Your task to perform on an android device: open sync settings in chrome Image 0: 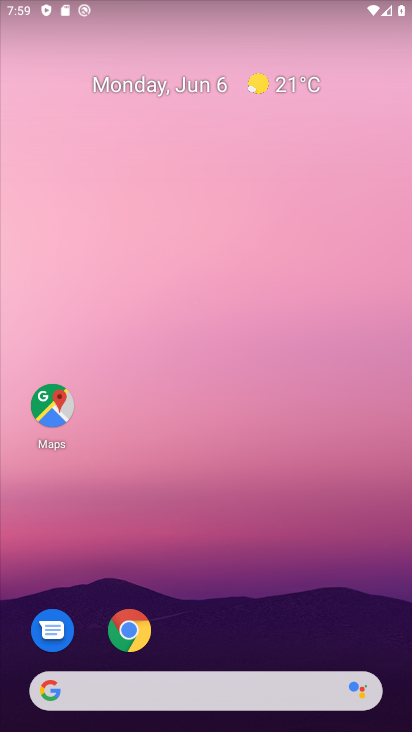
Step 0: click (141, 630)
Your task to perform on an android device: open sync settings in chrome Image 1: 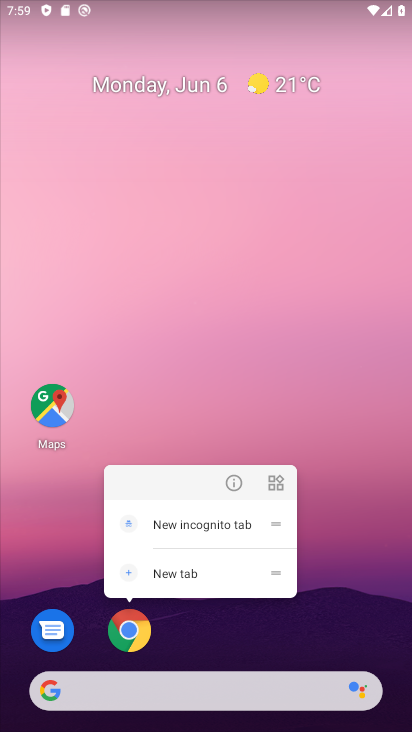
Step 1: click (140, 629)
Your task to perform on an android device: open sync settings in chrome Image 2: 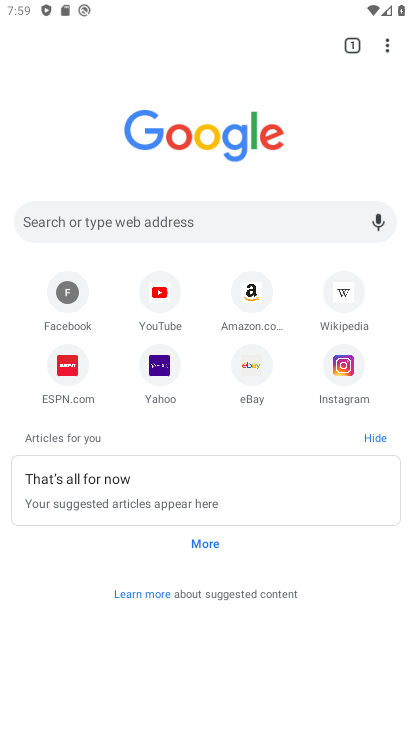
Step 2: click (388, 51)
Your task to perform on an android device: open sync settings in chrome Image 3: 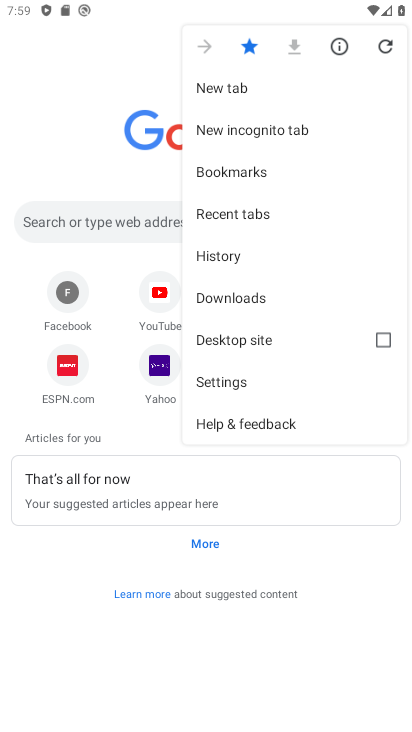
Step 3: click (238, 384)
Your task to perform on an android device: open sync settings in chrome Image 4: 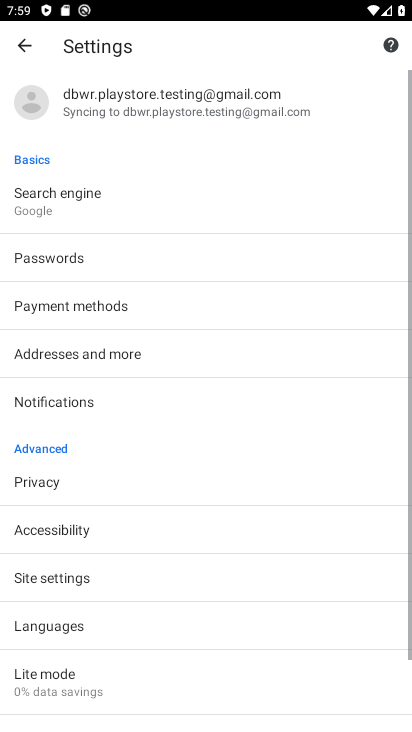
Step 4: drag from (202, 640) to (242, 377)
Your task to perform on an android device: open sync settings in chrome Image 5: 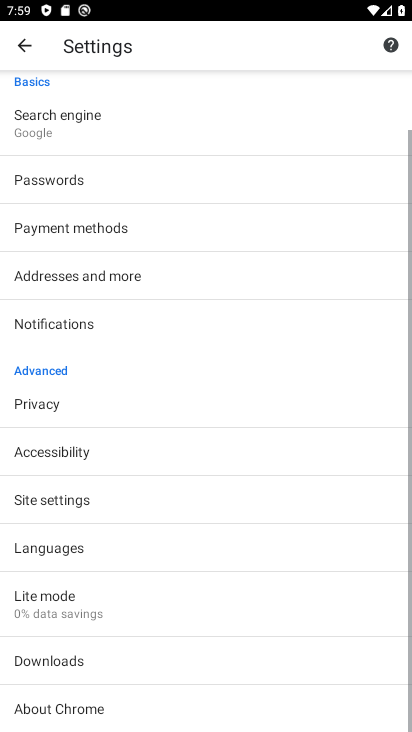
Step 5: drag from (196, 597) to (215, 303)
Your task to perform on an android device: open sync settings in chrome Image 6: 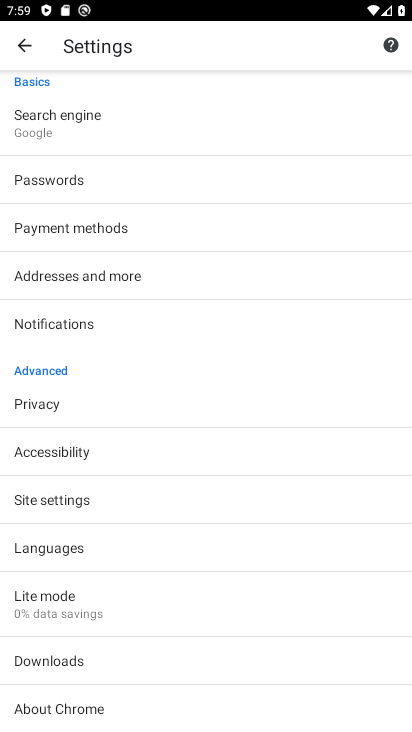
Step 6: drag from (169, 547) to (220, 237)
Your task to perform on an android device: open sync settings in chrome Image 7: 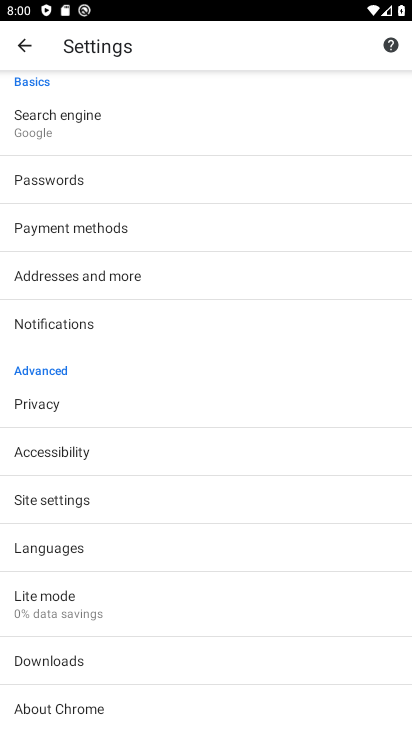
Step 7: drag from (159, 655) to (198, 424)
Your task to perform on an android device: open sync settings in chrome Image 8: 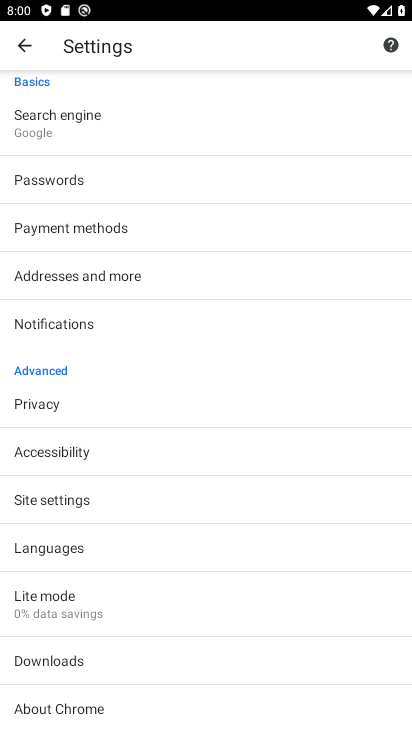
Step 8: drag from (198, 306) to (200, 538)
Your task to perform on an android device: open sync settings in chrome Image 9: 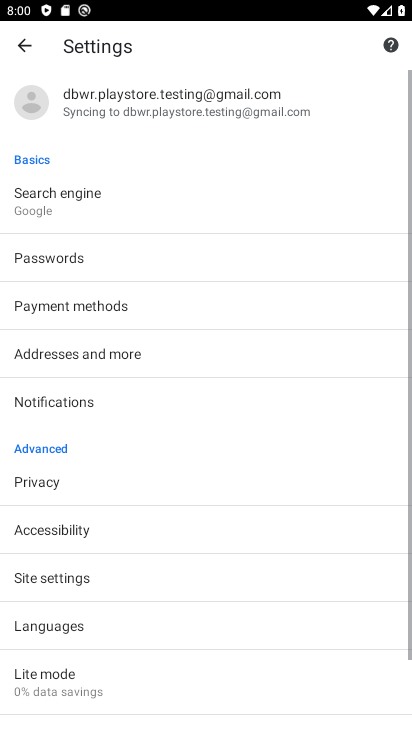
Step 9: drag from (188, 597) to (238, 314)
Your task to perform on an android device: open sync settings in chrome Image 10: 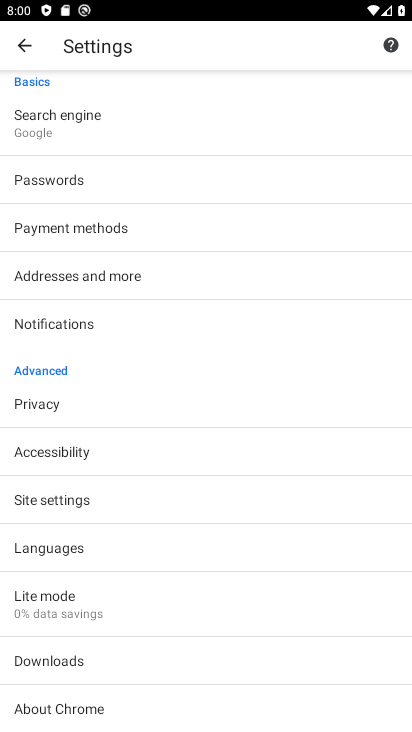
Step 10: drag from (160, 644) to (197, 412)
Your task to perform on an android device: open sync settings in chrome Image 11: 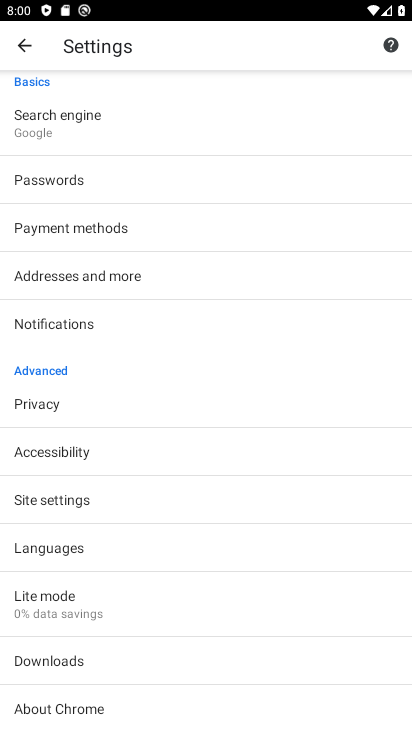
Step 11: drag from (199, 632) to (183, 352)
Your task to perform on an android device: open sync settings in chrome Image 12: 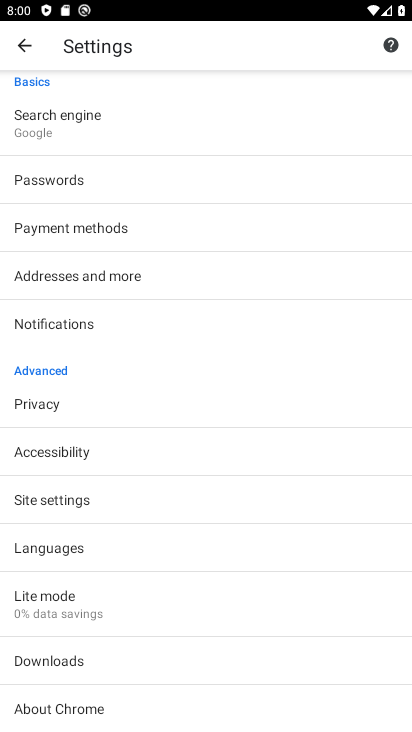
Step 12: drag from (131, 566) to (129, 242)
Your task to perform on an android device: open sync settings in chrome Image 13: 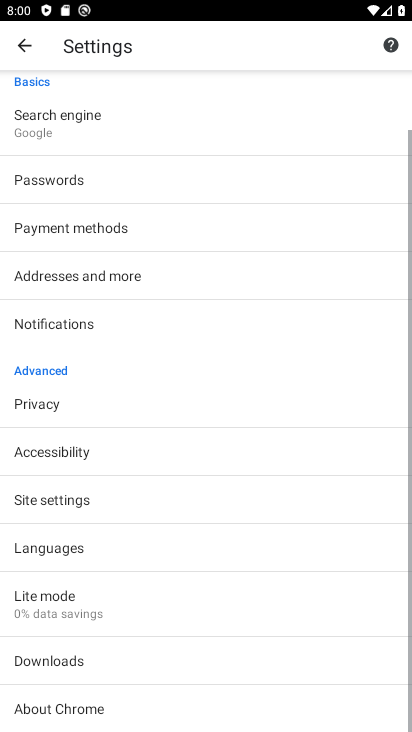
Step 13: drag from (131, 266) to (127, 524)
Your task to perform on an android device: open sync settings in chrome Image 14: 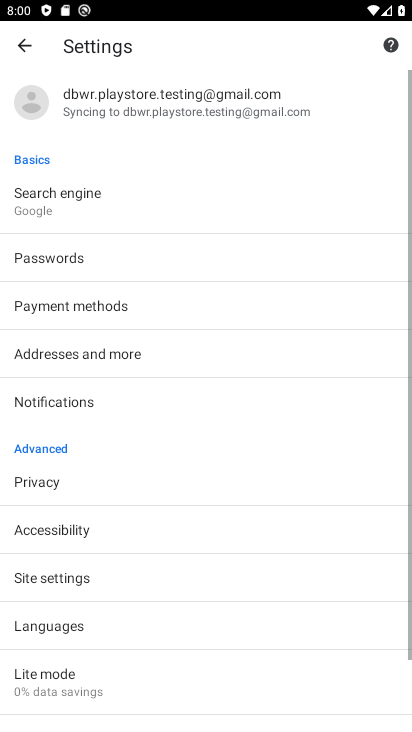
Step 14: drag from (163, 564) to (189, 265)
Your task to perform on an android device: open sync settings in chrome Image 15: 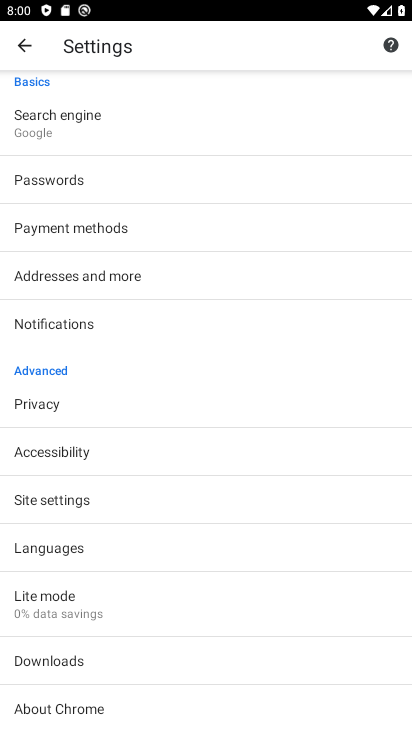
Step 15: drag from (162, 324) to (169, 561)
Your task to perform on an android device: open sync settings in chrome Image 16: 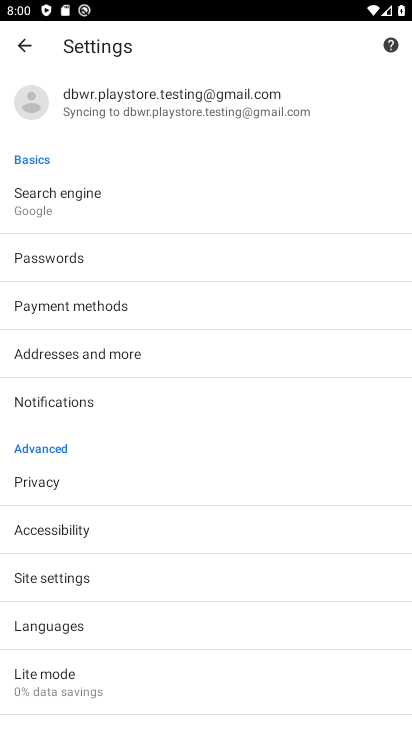
Step 16: click (193, 111)
Your task to perform on an android device: open sync settings in chrome Image 17: 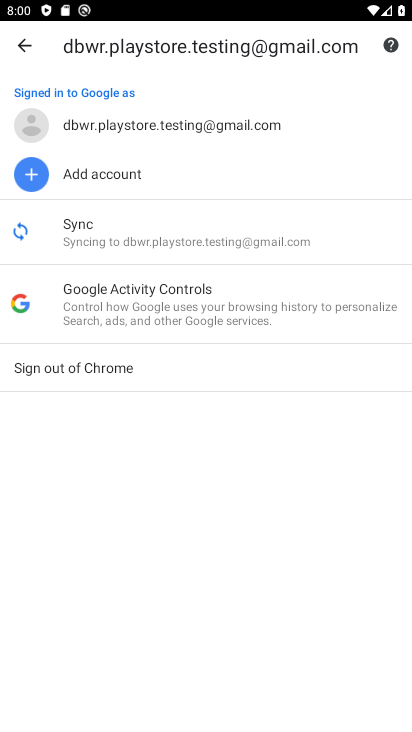
Step 17: click (164, 231)
Your task to perform on an android device: open sync settings in chrome Image 18: 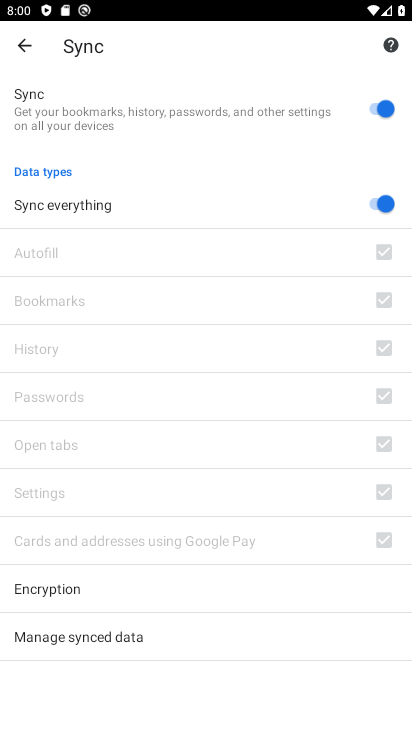
Step 18: task complete